Your task to perform on an android device: Show me recent news Image 0: 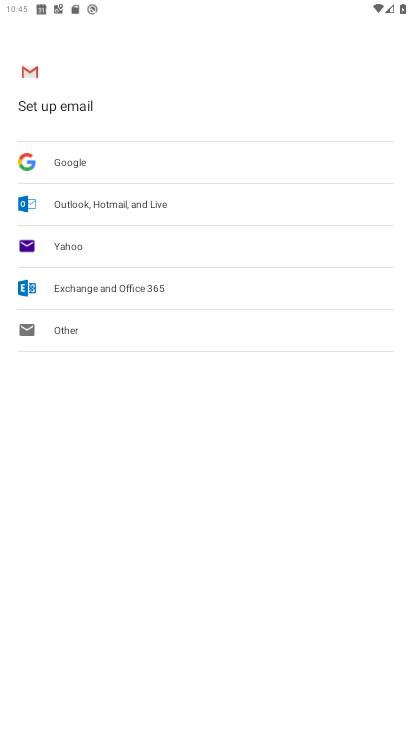
Step 0: press home button
Your task to perform on an android device: Show me recent news Image 1: 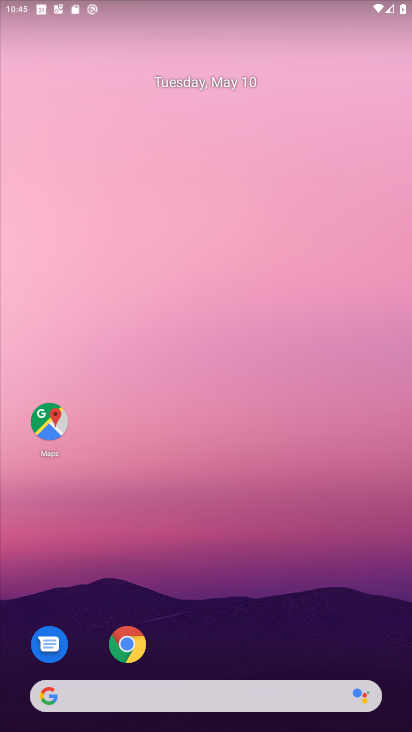
Step 1: click (364, 444)
Your task to perform on an android device: Show me recent news Image 2: 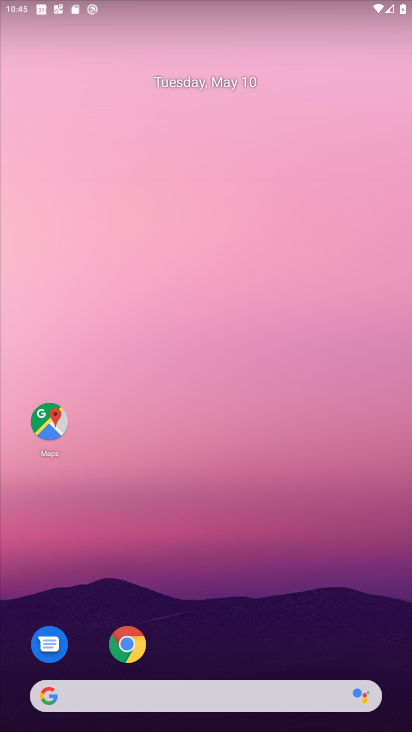
Step 2: drag from (255, 588) to (315, 118)
Your task to perform on an android device: Show me recent news Image 3: 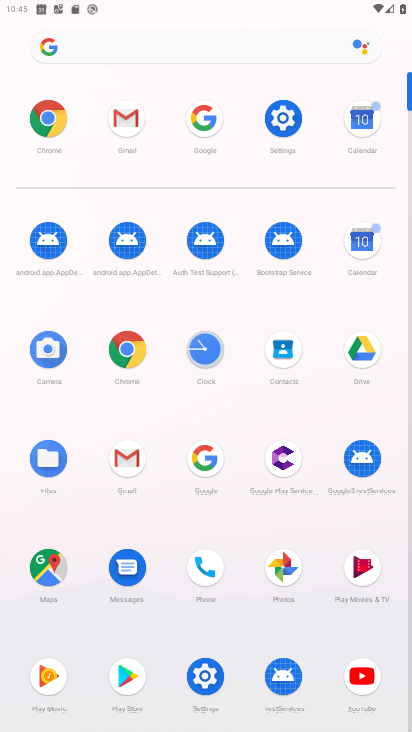
Step 3: click (207, 456)
Your task to perform on an android device: Show me recent news Image 4: 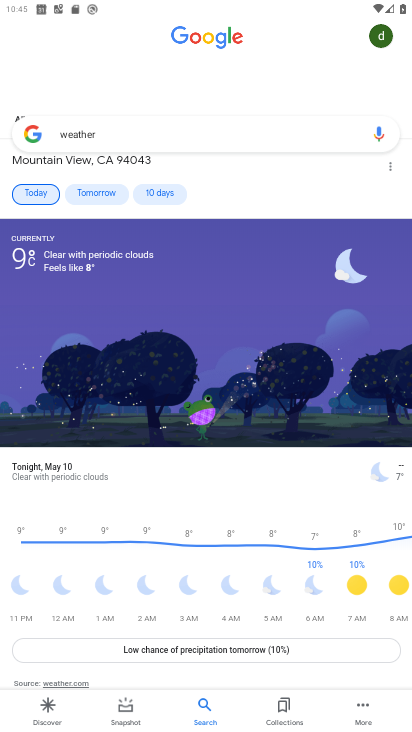
Step 4: click (158, 132)
Your task to perform on an android device: Show me recent news Image 5: 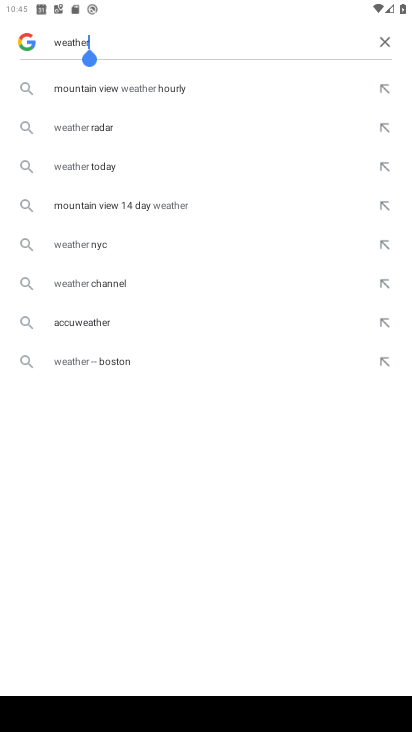
Step 5: click (386, 42)
Your task to perform on an android device: Show me recent news Image 6: 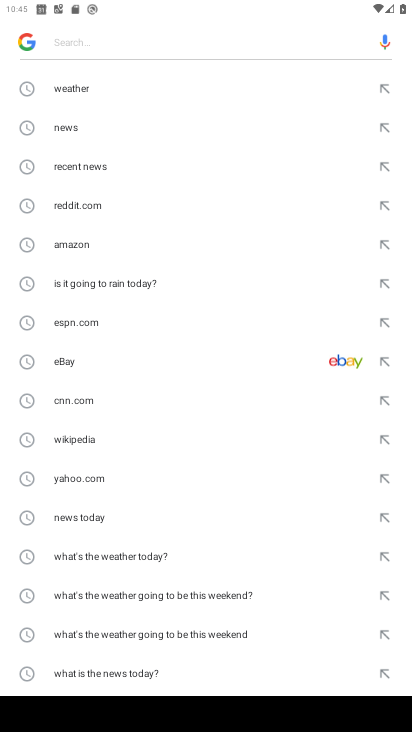
Step 6: click (134, 128)
Your task to perform on an android device: Show me recent news Image 7: 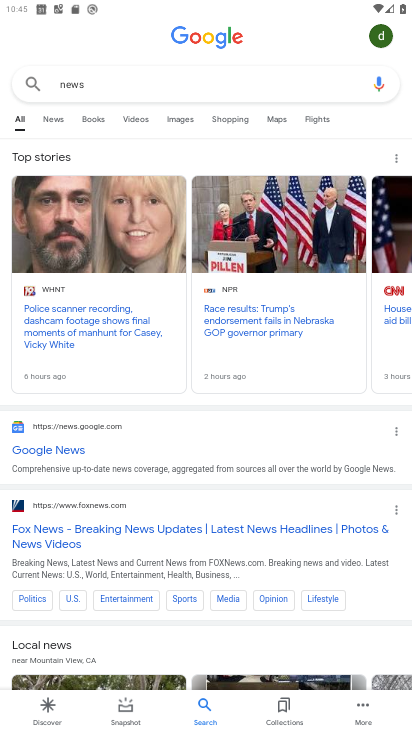
Step 7: click (51, 121)
Your task to perform on an android device: Show me recent news Image 8: 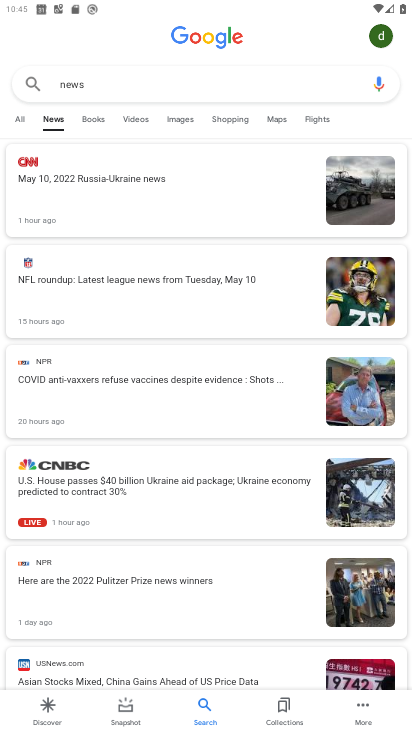
Step 8: task complete